Your task to perform on an android device: Go to accessibility settings Image 0: 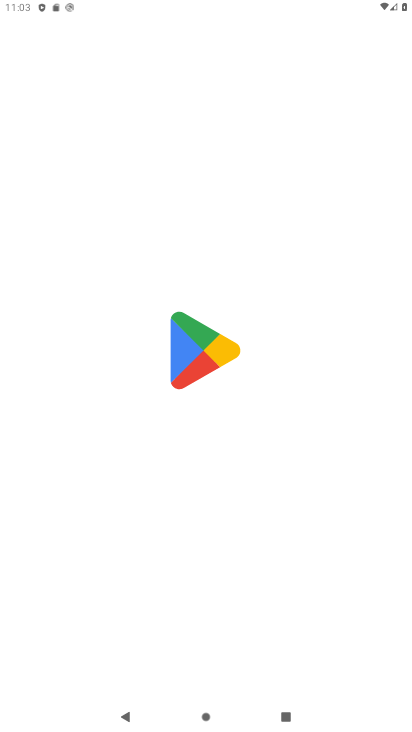
Step 0: drag from (333, 621) to (321, 499)
Your task to perform on an android device: Go to accessibility settings Image 1: 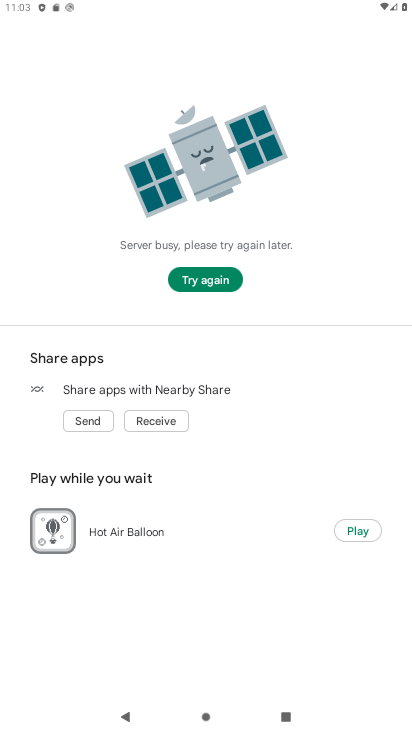
Step 1: press home button
Your task to perform on an android device: Go to accessibility settings Image 2: 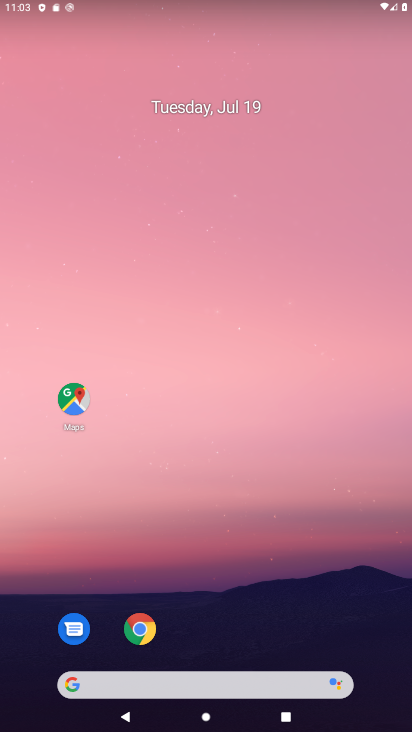
Step 2: drag from (340, 646) to (288, 180)
Your task to perform on an android device: Go to accessibility settings Image 3: 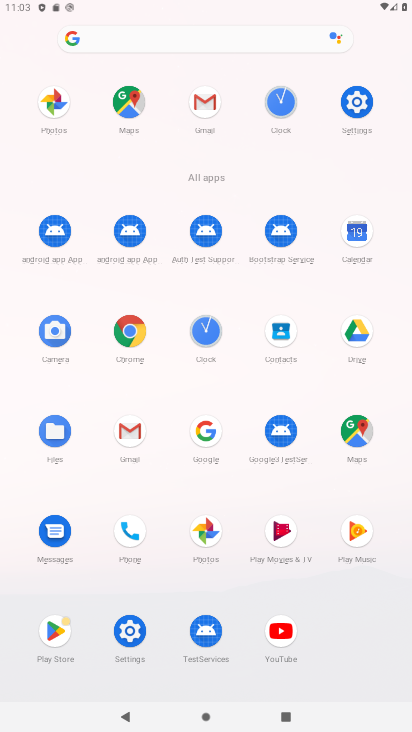
Step 3: click (357, 92)
Your task to perform on an android device: Go to accessibility settings Image 4: 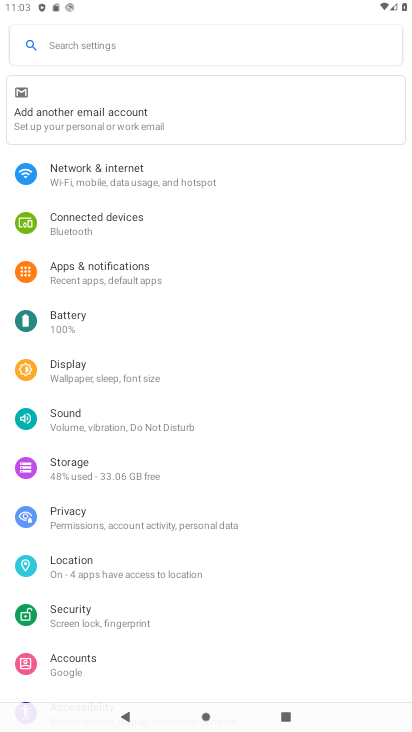
Step 4: drag from (210, 525) to (229, 212)
Your task to perform on an android device: Go to accessibility settings Image 5: 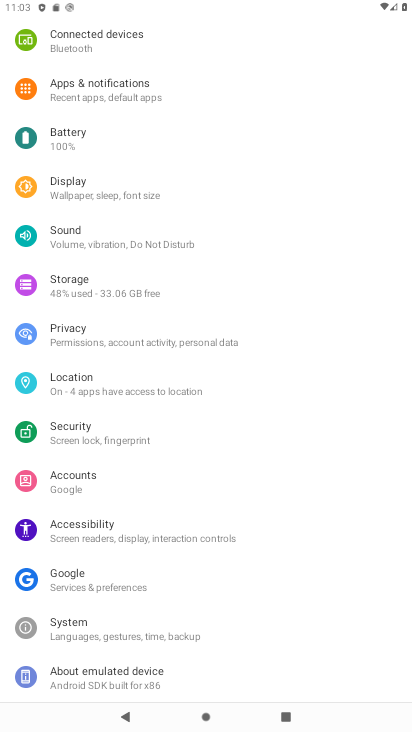
Step 5: click (78, 526)
Your task to perform on an android device: Go to accessibility settings Image 6: 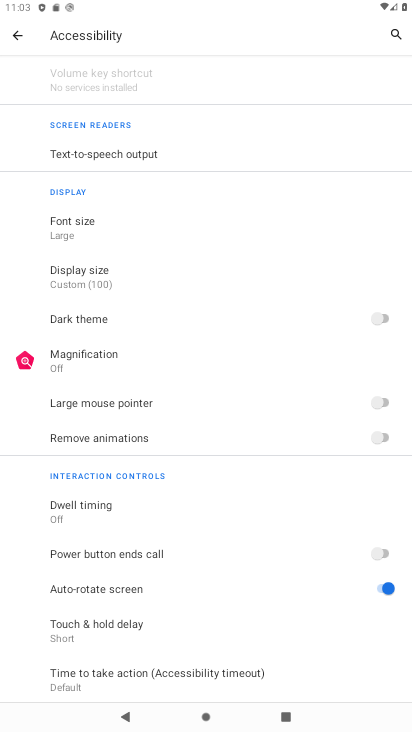
Step 6: task complete